Your task to perform on an android device: Go to internet settings Image 0: 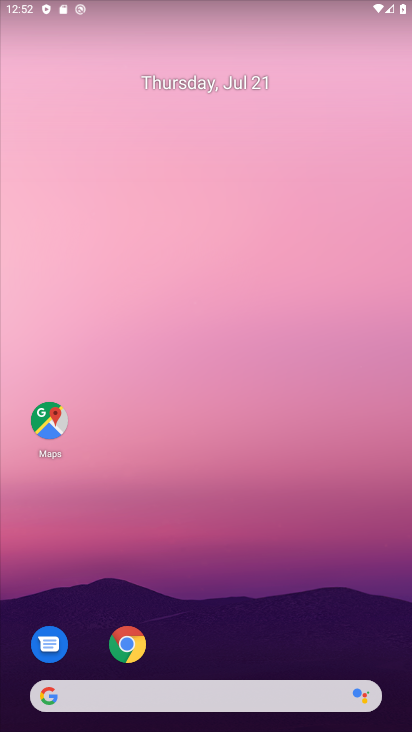
Step 0: drag from (203, 669) to (150, 180)
Your task to perform on an android device: Go to internet settings Image 1: 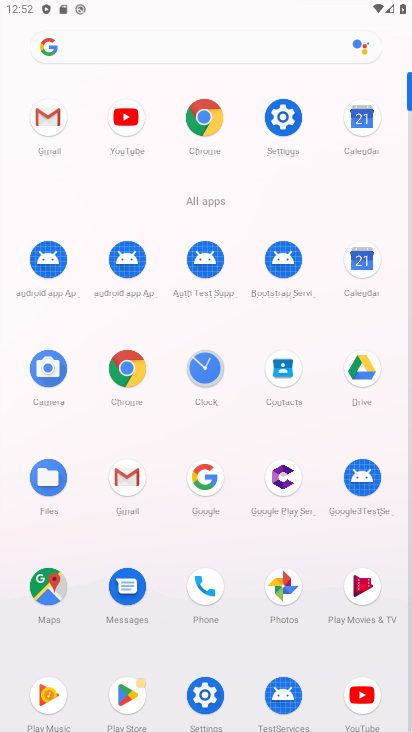
Step 1: click (292, 118)
Your task to perform on an android device: Go to internet settings Image 2: 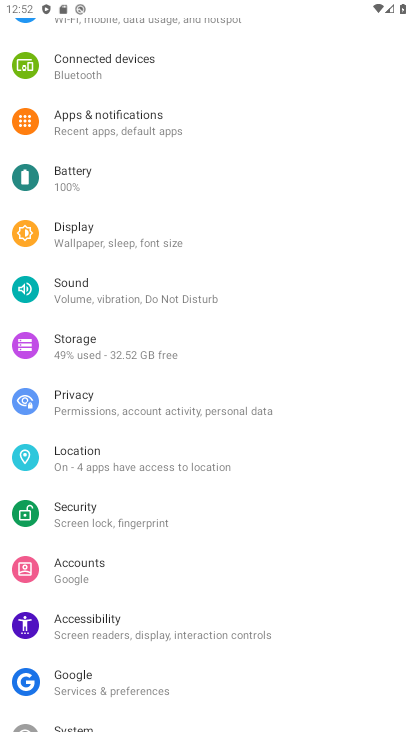
Step 2: drag from (86, 86) to (133, 560)
Your task to perform on an android device: Go to internet settings Image 3: 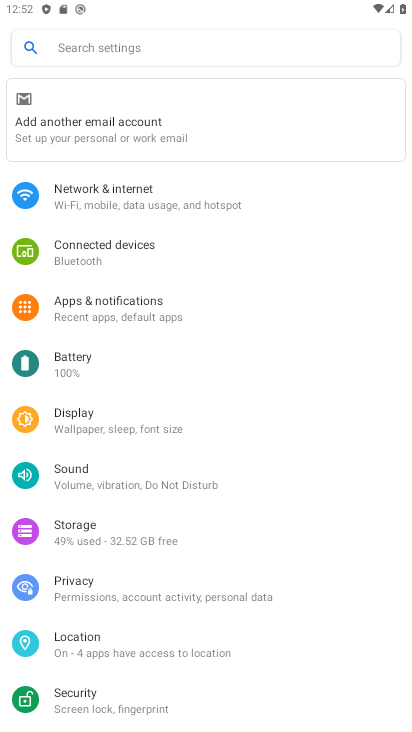
Step 3: click (105, 187)
Your task to perform on an android device: Go to internet settings Image 4: 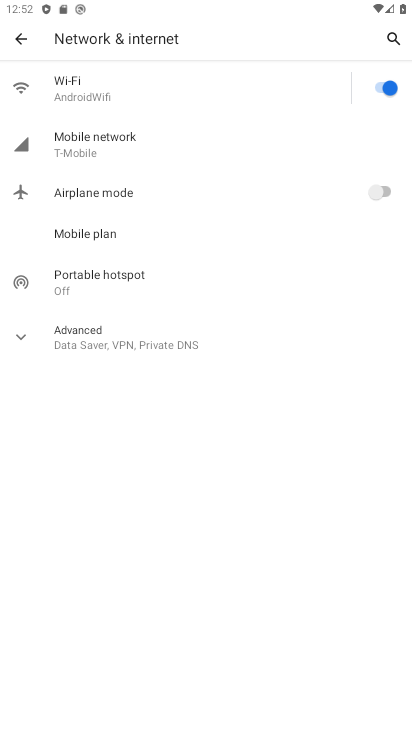
Step 4: click (103, 148)
Your task to perform on an android device: Go to internet settings Image 5: 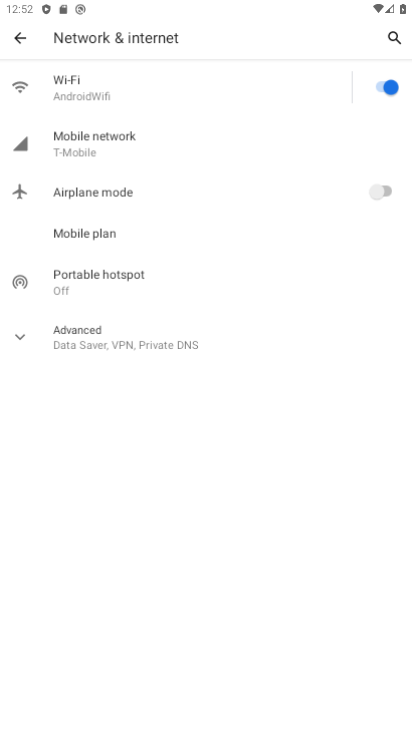
Step 5: task complete